Your task to perform on an android device: Go to Google maps Image 0: 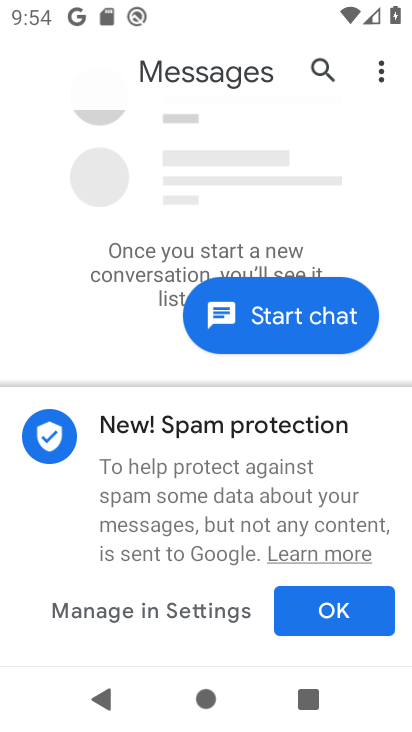
Step 0: press home button
Your task to perform on an android device: Go to Google maps Image 1: 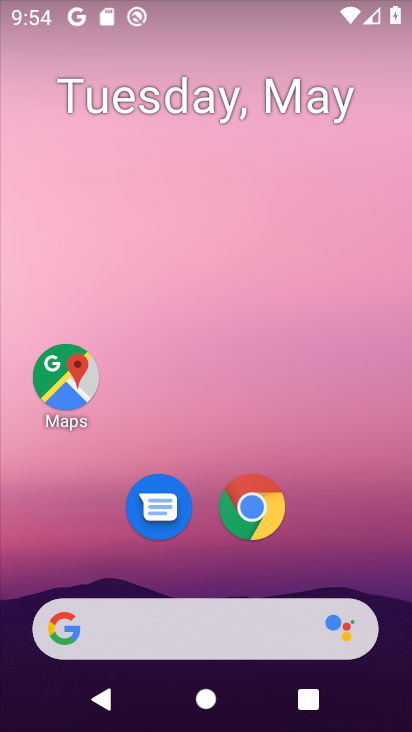
Step 1: click (42, 385)
Your task to perform on an android device: Go to Google maps Image 2: 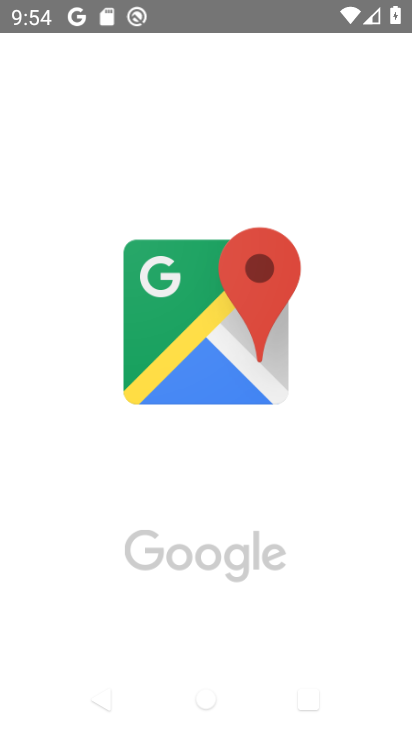
Step 2: click (42, 385)
Your task to perform on an android device: Go to Google maps Image 3: 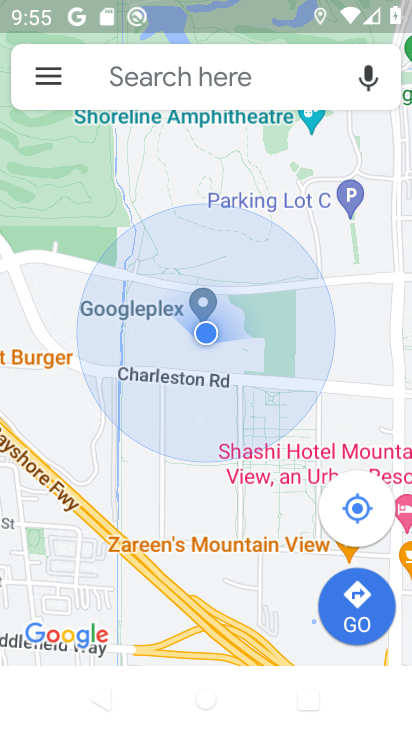
Step 3: task complete